Your task to perform on an android device: Go to display settings Image 0: 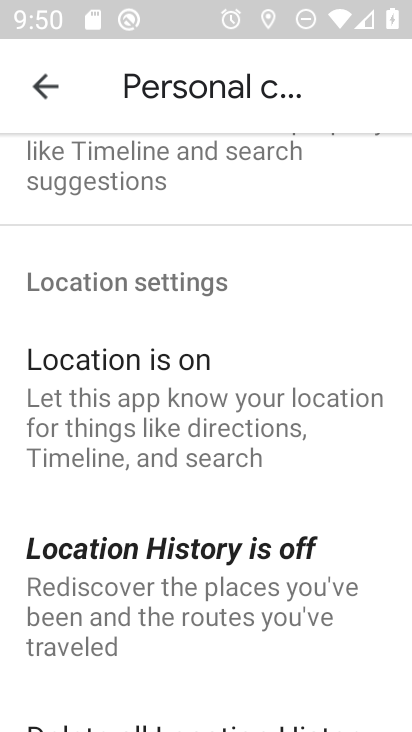
Step 0: press home button
Your task to perform on an android device: Go to display settings Image 1: 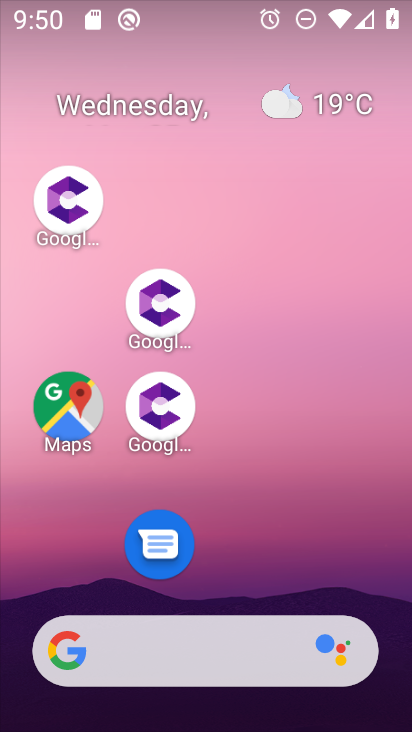
Step 1: drag from (266, 509) to (208, 18)
Your task to perform on an android device: Go to display settings Image 2: 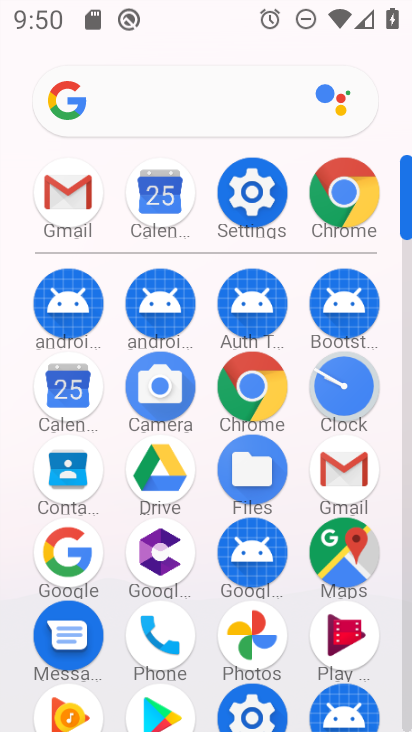
Step 2: click (251, 196)
Your task to perform on an android device: Go to display settings Image 3: 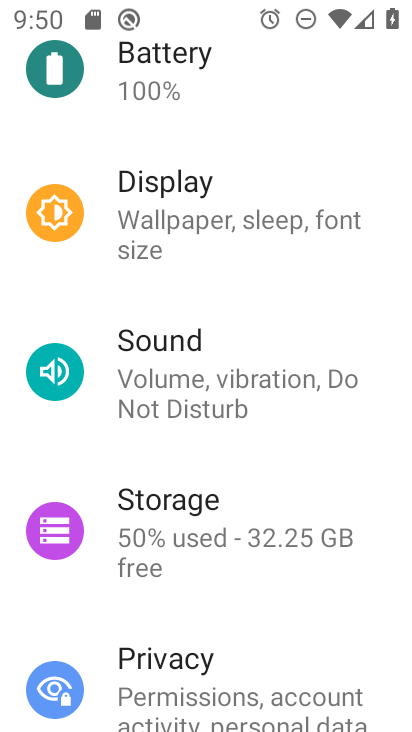
Step 3: click (173, 183)
Your task to perform on an android device: Go to display settings Image 4: 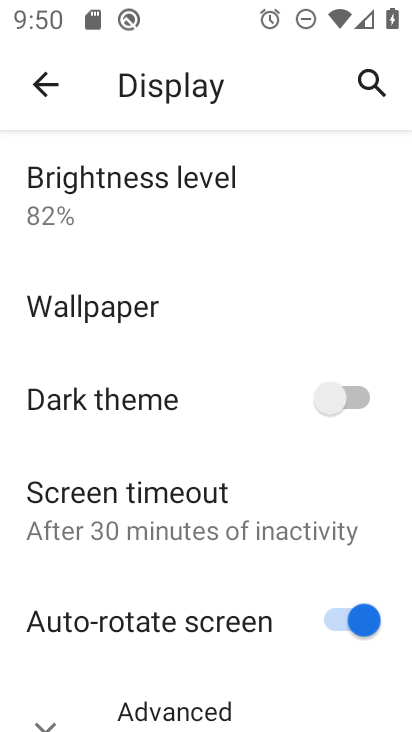
Step 4: drag from (243, 460) to (186, 89)
Your task to perform on an android device: Go to display settings Image 5: 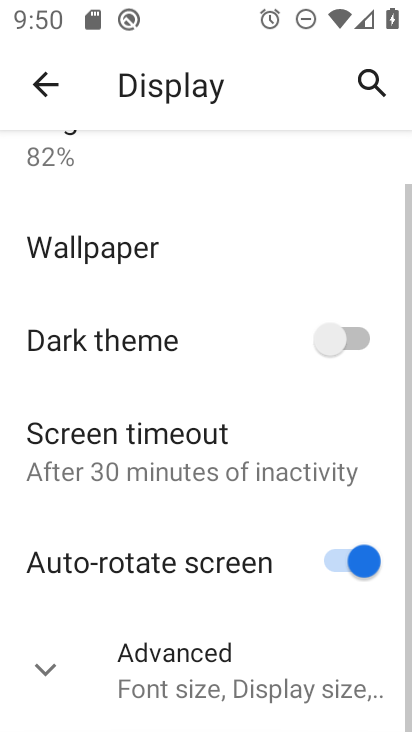
Step 5: click (186, 89)
Your task to perform on an android device: Go to display settings Image 6: 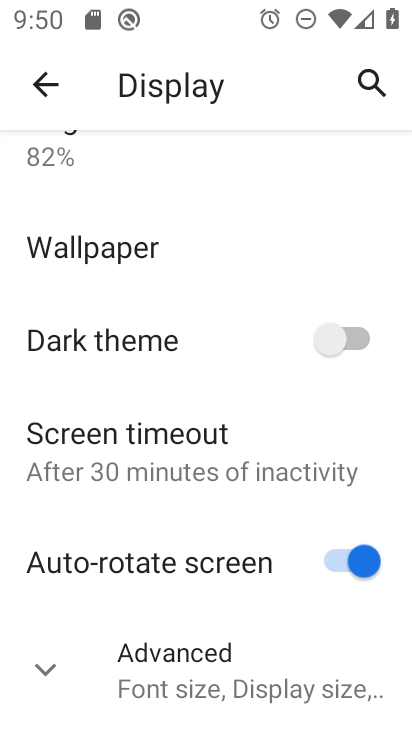
Step 6: task complete